Your task to perform on an android device: turn off notifications in google photos Image 0: 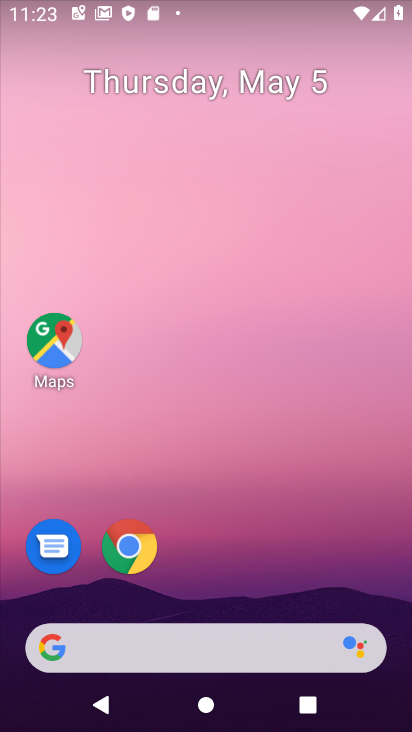
Step 0: drag from (283, 577) to (275, 155)
Your task to perform on an android device: turn off notifications in google photos Image 1: 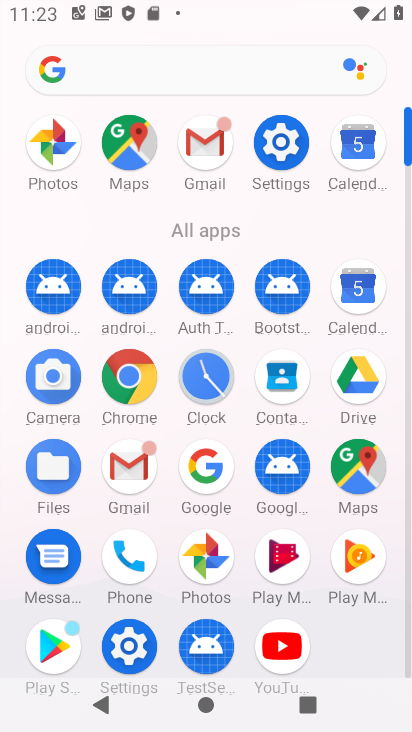
Step 1: click (207, 554)
Your task to perform on an android device: turn off notifications in google photos Image 2: 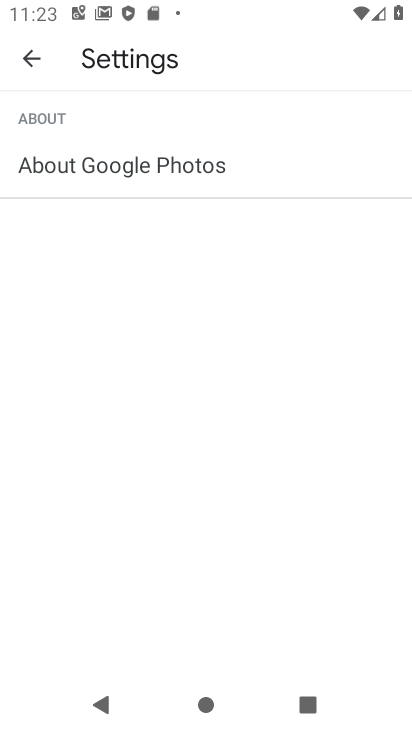
Step 2: click (22, 59)
Your task to perform on an android device: turn off notifications in google photos Image 3: 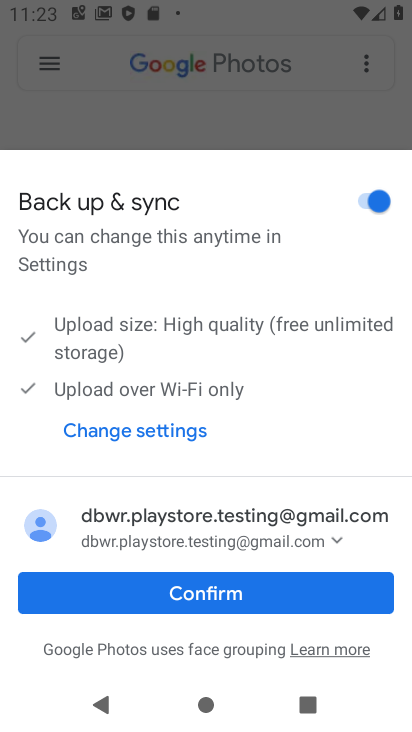
Step 3: click (216, 593)
Your task to perform on an android device: turn off notifications in google photos Image 4: 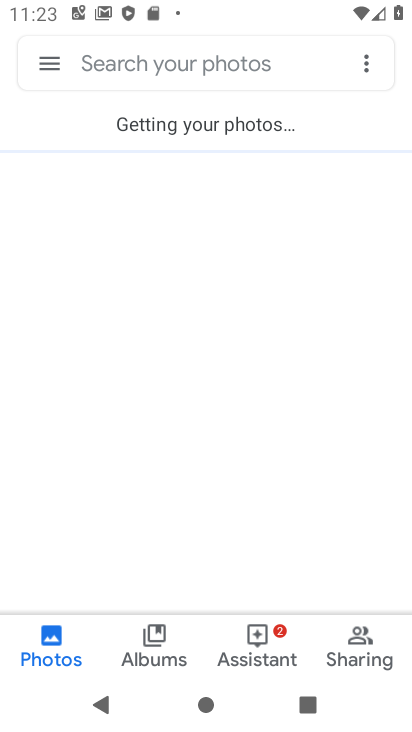
Step 4: click (53, 71)
Your task to perform on an android device: turn off notifications in google photos Image 5: 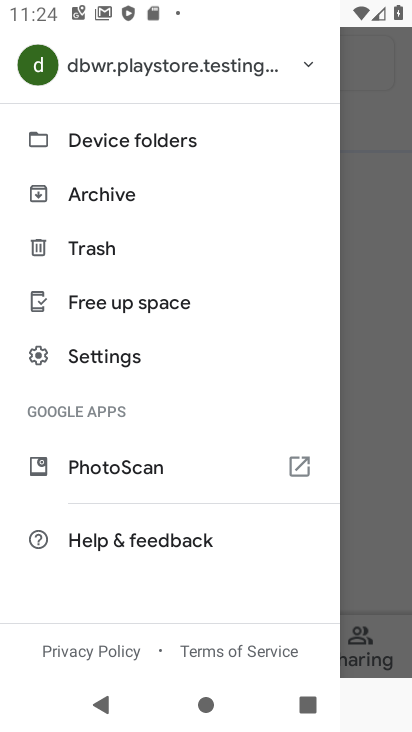
Step 5: click (119, 354)
Your task to perform on an android device: turn off notifications in google photos Image 6: 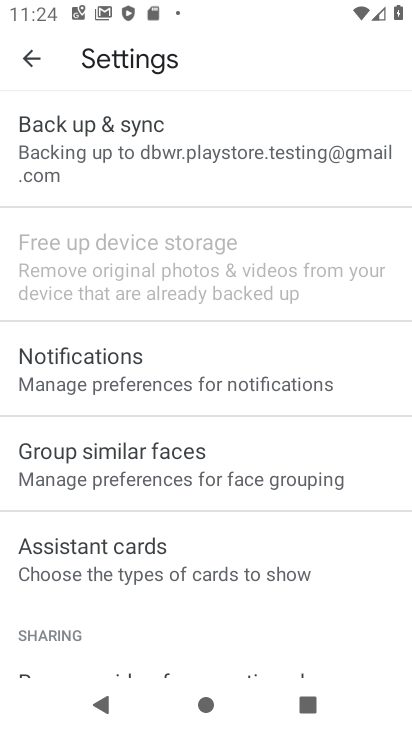
Step 6: click (147, 371)
Your task to perform on an android device: turn off notifications in google photos Image 7: 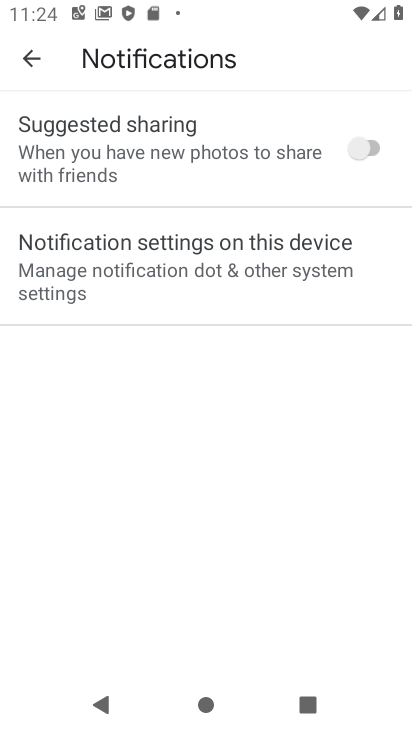
Step 7: click (240, 260)
Your task to perform on an android device: turn off notifications in google photos Image 8: 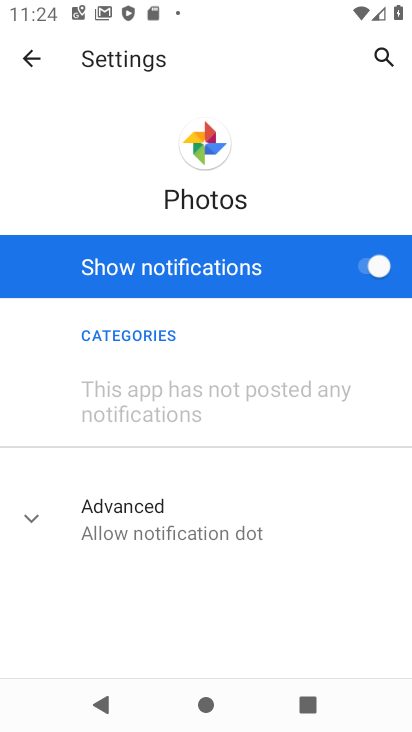
Step 8: click (362, 271)
Your task to perform on an android device: turn off notifications in google photos Image 9: 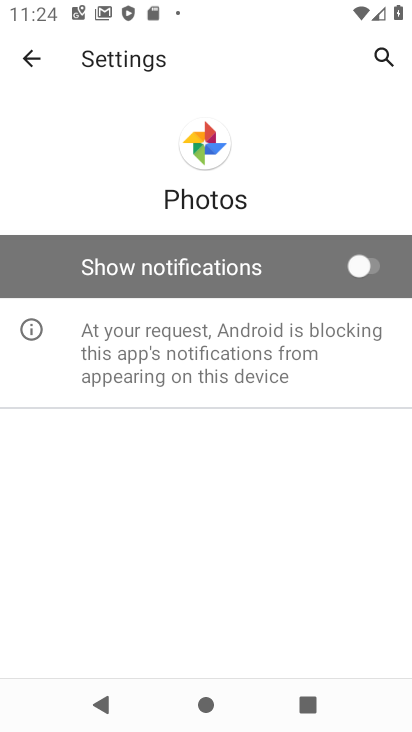
Step 9: task complete